Your task to perform on an android device: Open Google Chrome Image 0: 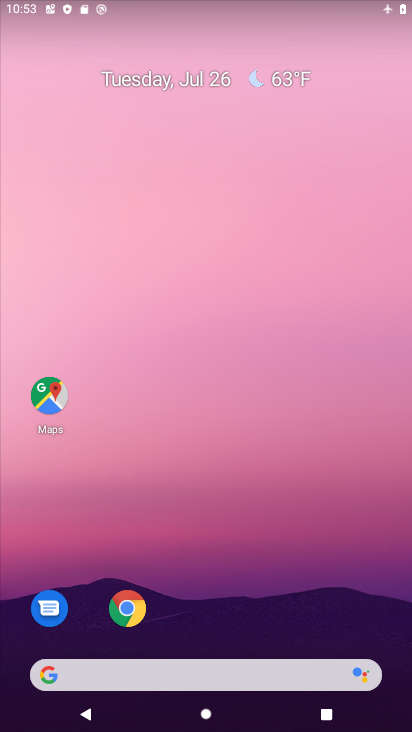
Step 0: press home button
Your task to perform on an android device: Open Google Chrome Image 1: 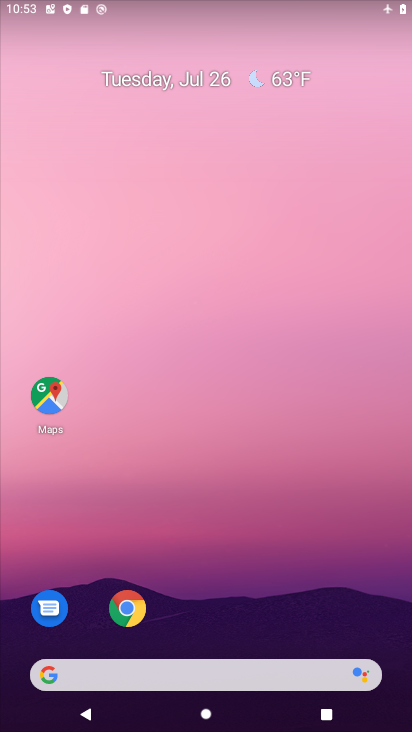
Step 1: click (118, 609)
Your task to perform on an android device: Open Google Chrome Image 2: 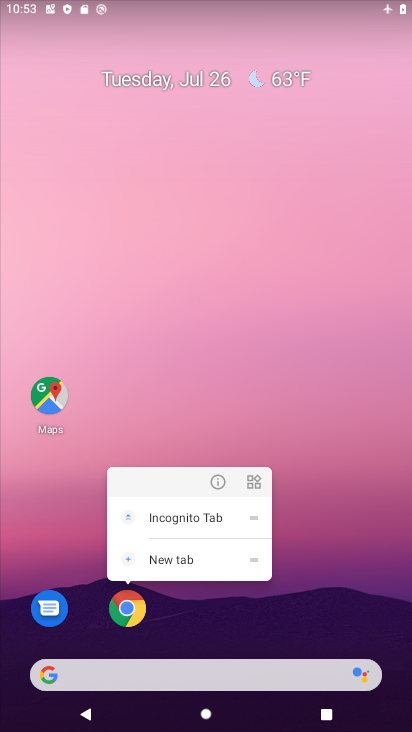
Step 2: click (118, 609)
Your task to perform on an android device: Open Google Chrome Image 3: 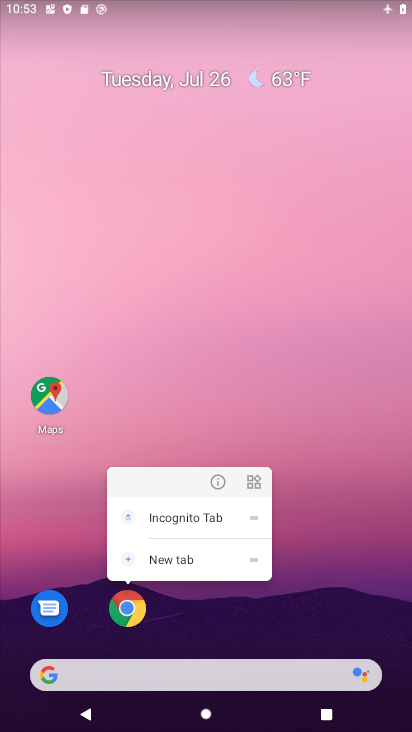
Step 3: click (118, 609)
Your task to perform on an android device: Open Google Chrome Image 4: 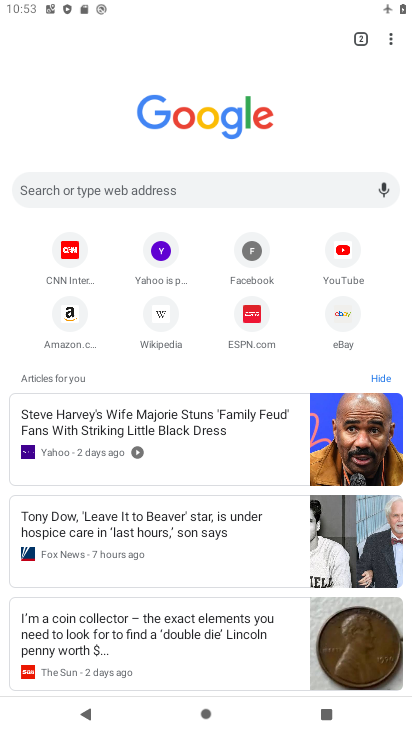
Step 4: task complete